Your task to perform on an android device: toggle priority inbox in the gmail app Image 0: 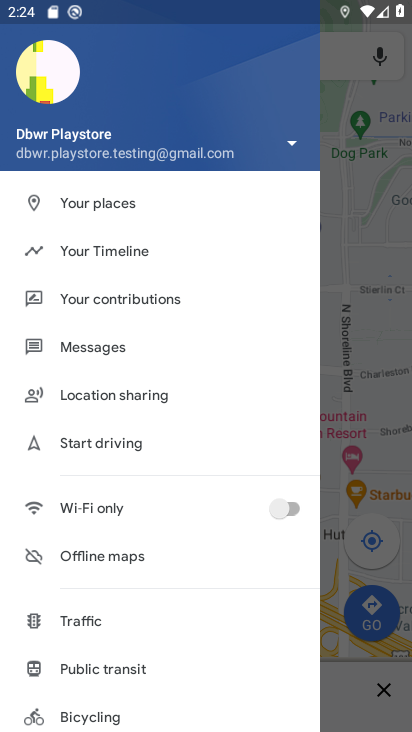
Step 0: drag from (178, 569) to (217, 245)
Your task to perform on an android device: toggle priority inbox in the gmail app Image 1: 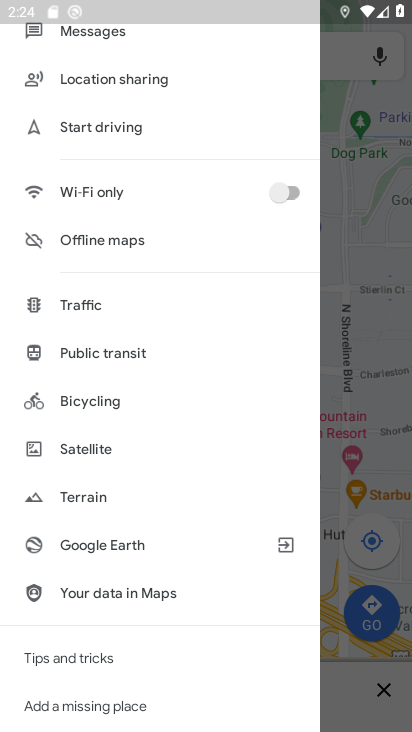
Step 1: drag from (162, 531) to (199, 284)
Your task to perform on an android device: toggle priority inbox in the gmail app Image 2: 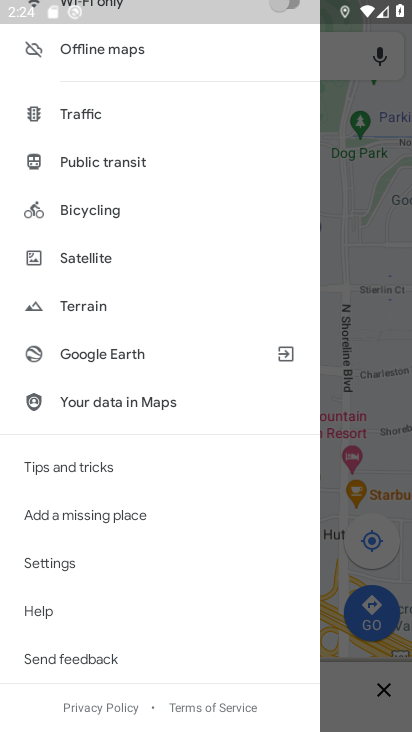
Step 2: press home button
Your task to perform on an android device: toggle priority inbox in the gmail app Image 3: 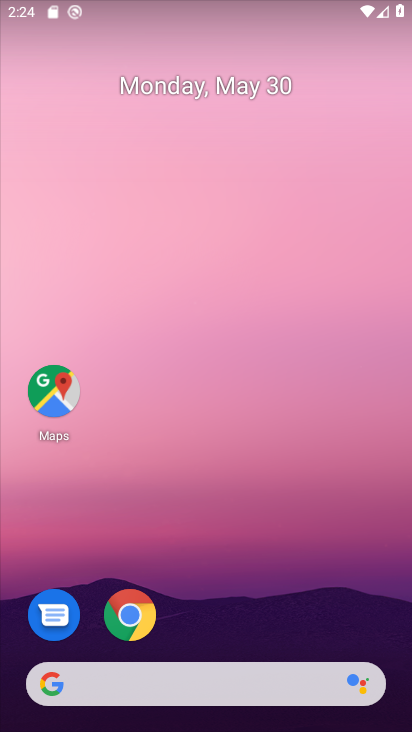
Step 3: drag from (232, 551) to (273, 56)
Your task to perform on an android device: toggle priority inbox in the gmail app Image 4: 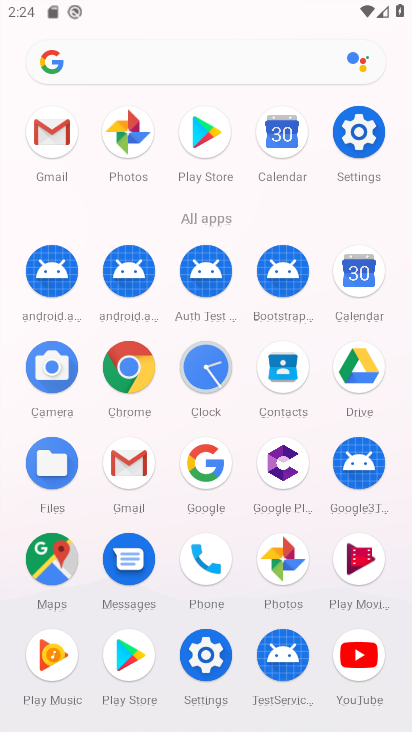
Step 4: click (42, 122)
Your task to perform on an android device: toggle priority inbox in the gmail app Image 5: 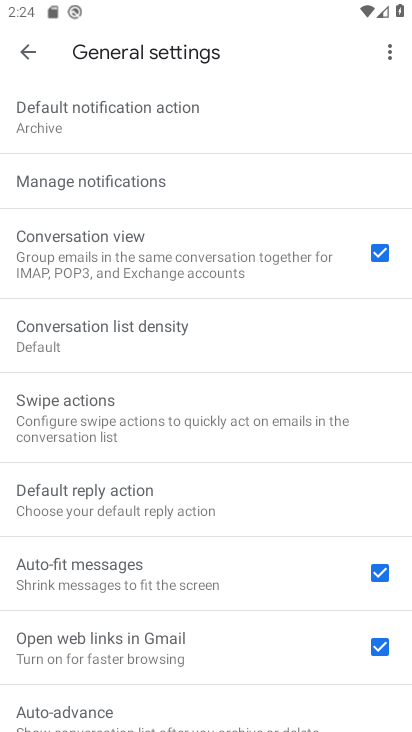
Step 5: drag from (138, 353) to (205, 600)
Your task to perform on an android device: toggle priority inbox in the gmail app Image 6: 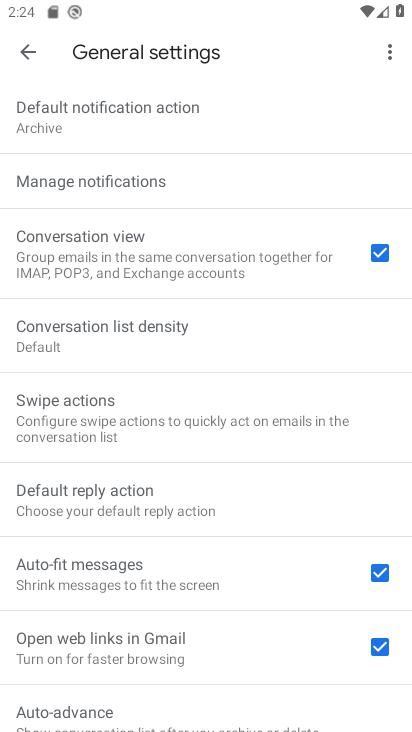
Step 6: click (23, 49)
Your task to perform on an android device: toggle priority inbox in the gmail app Image 7: 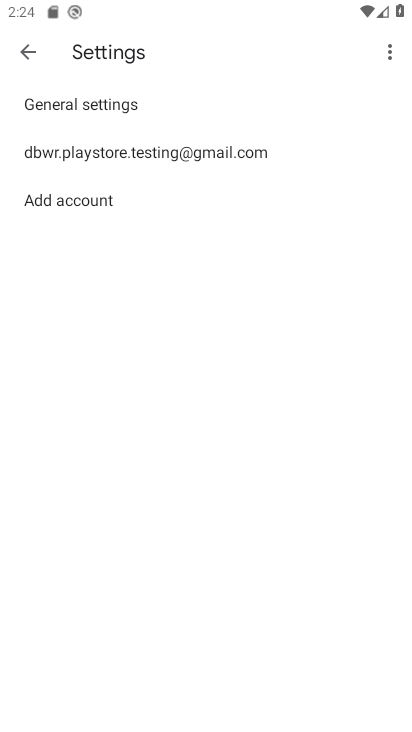
Step 7: click (77, 152)
Your task to perform on an android device: toggle priority inbox in the gmail app Image 8: 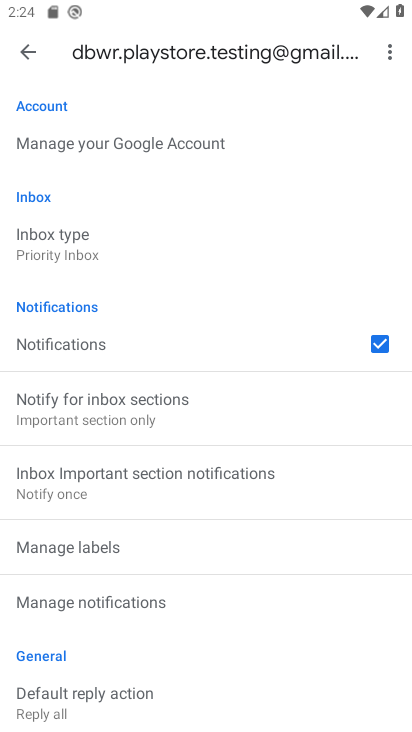
Step 8: click (77, 243)
Your task to perform on an android device: toggle priority inbox in the gmail app Image 9: 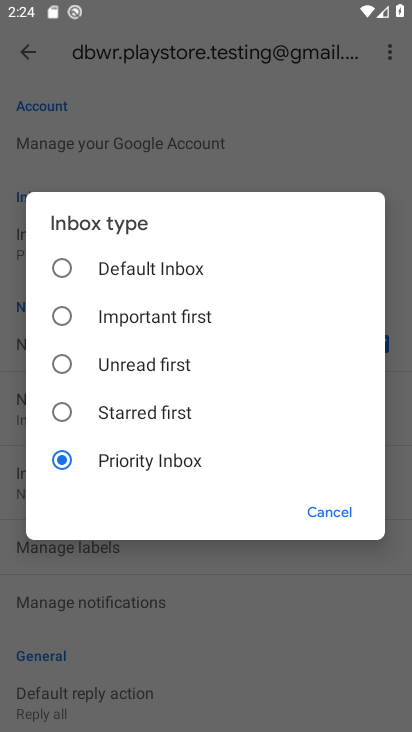
Step 9: click (66, 262)
Your task to perform on an android device: toggle priority inbox in the gmail app Image 10: 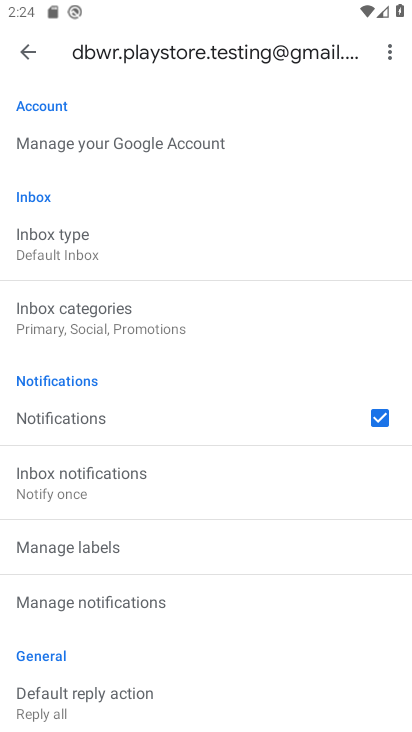
Step 10: task complete